Your task to perform on an android device: What is the news today? Image 0: 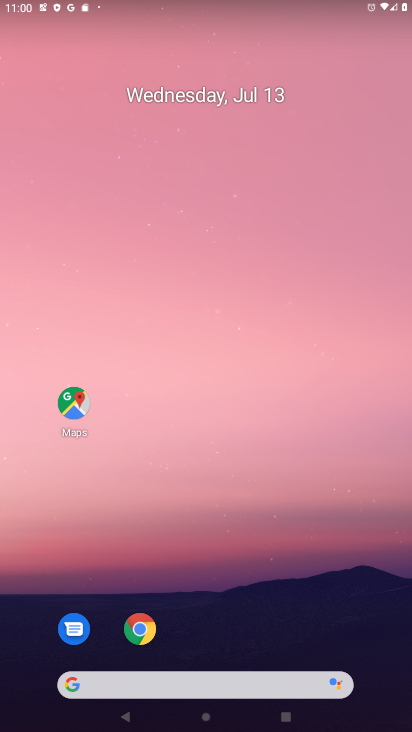
Step 0: drag from (273, 625) to (227, 134)
Your task to perform on an android device: What is the news today? Image 1: 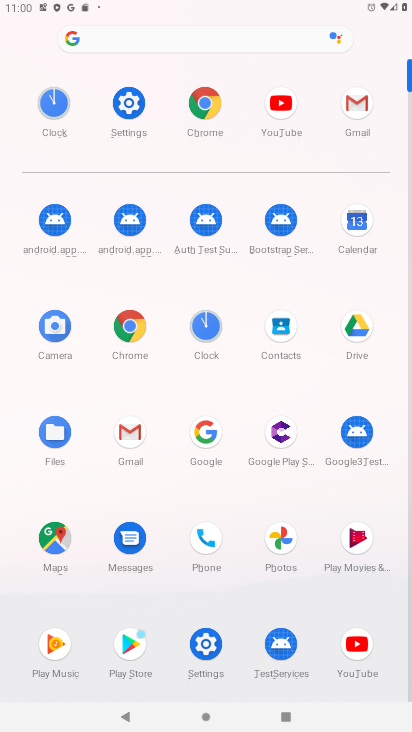
Step 1: click (180, 31)
Your task to perform on an android device: What is the news today? Image 2: 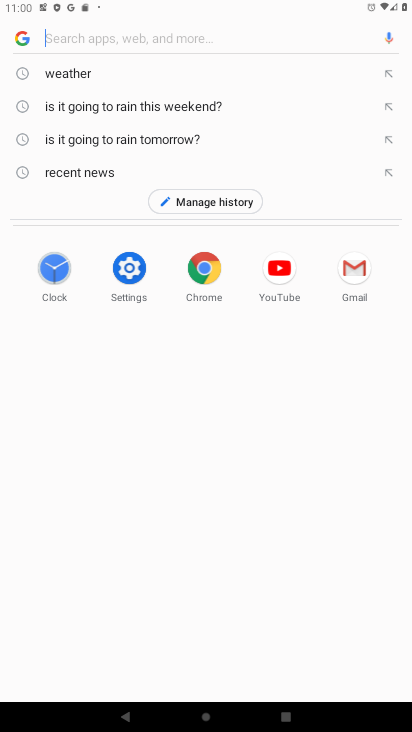
Step 2: click (177, 65)
Your task to perform on an android device: What is the news today? Image 3: 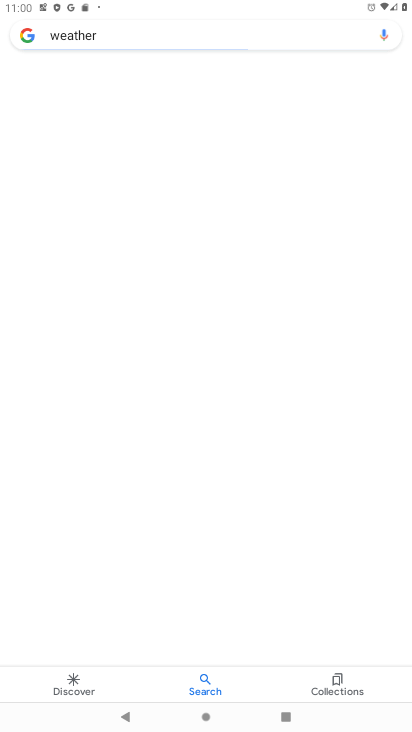
Step 3: task complete